Your task to perform on an android device: add a contact Image 0: 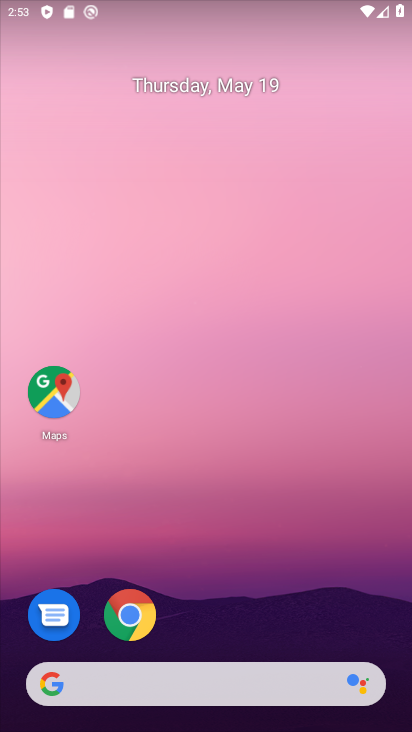
Step 0: press home button
Your task to perform on an android device: add a contact Image 1: 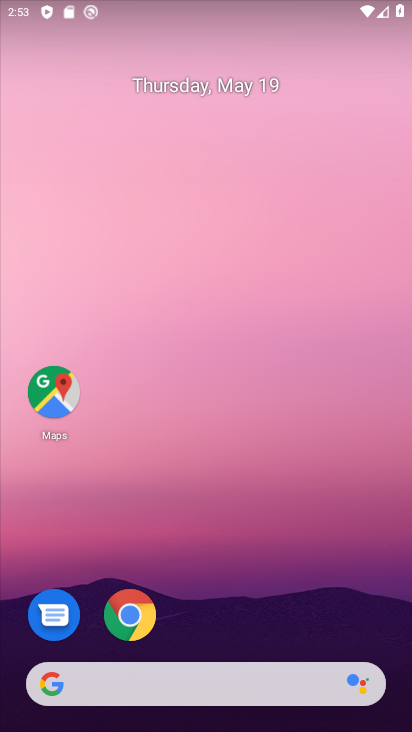
Step 1: drag from (334, 624) to (348, 141)
Your task to perform on an android device: add a contact Image 2: 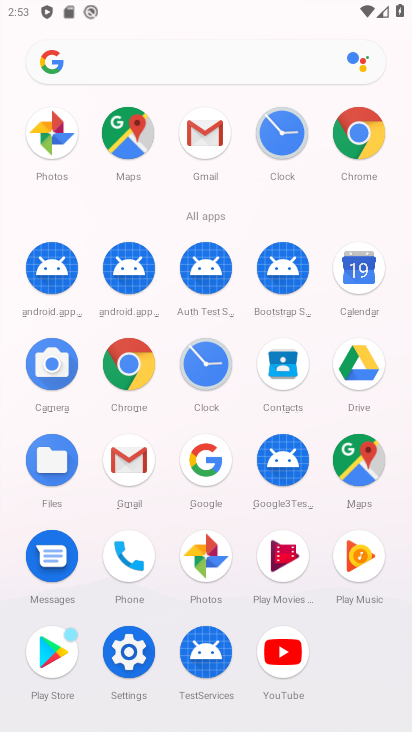
Step 2: click (352, 280)
Your task to perform on an android device: add a contact Image 3: 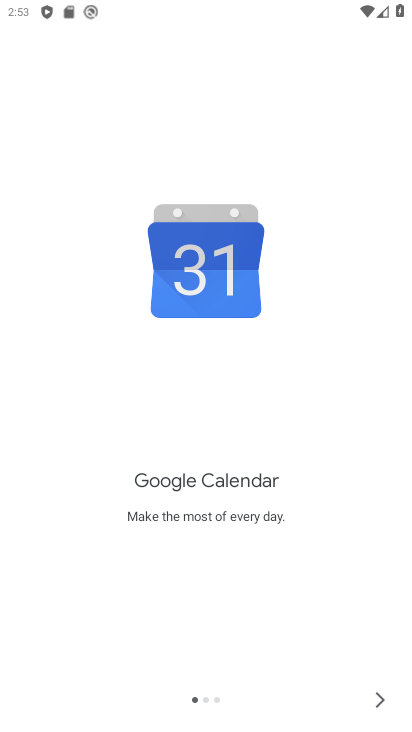
Step 3: click (376, 691)
Your task to perform on an android device: add a contact Image 4: 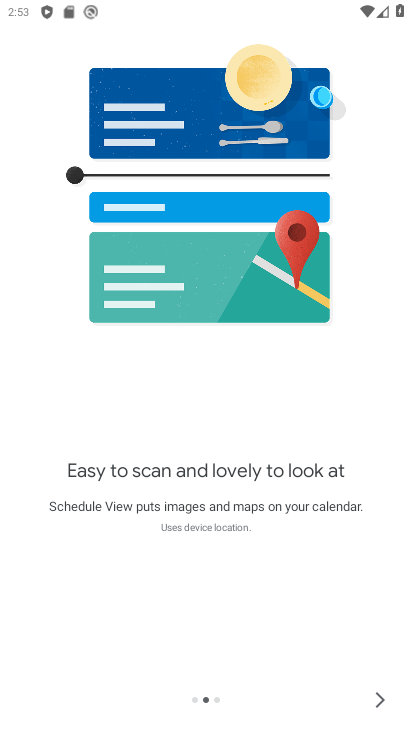
Step 4: press home button
Your task to perform on an android device: add a contact Image 5: 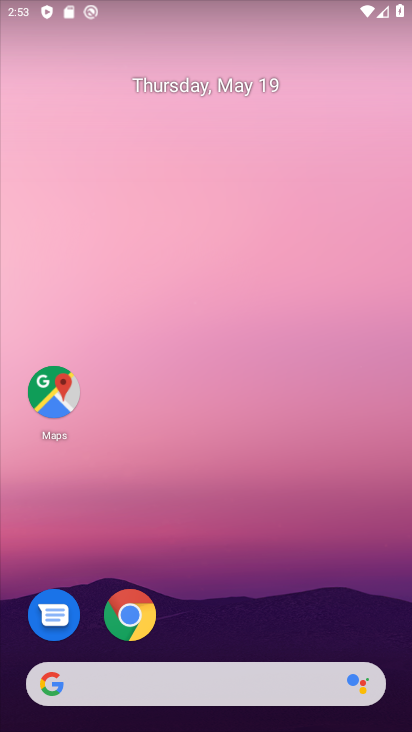
Step 5: drag from (225, 627) to (353, 14)
Your task to perform on an android device: add a contact Image 6: 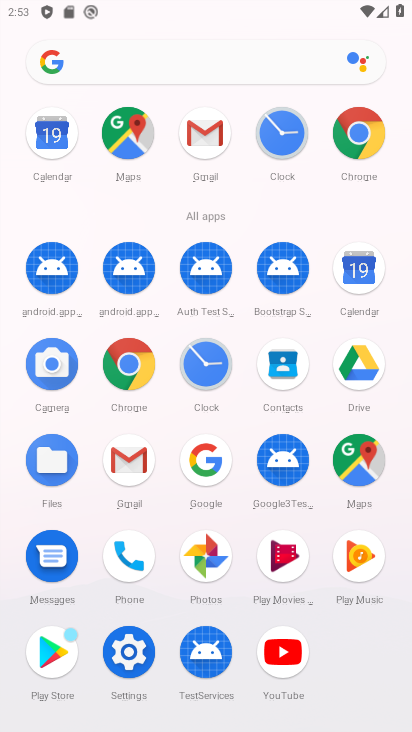
Step 6: click (265, 380)
Your task to perform on an android device: add a contact Image 7: 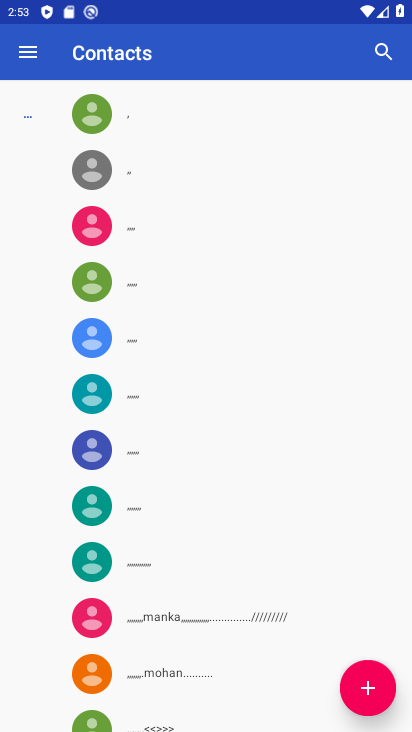
Step 7: click (371, 685)
Your task to perform on an android device: add a contact Image 8: 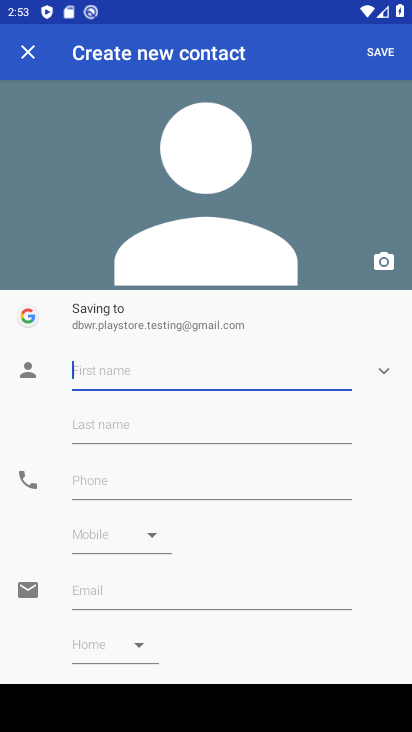
Step 8: type "dfghjkjhgfd"
Your task to perform on an android device: add a contact Image 9: 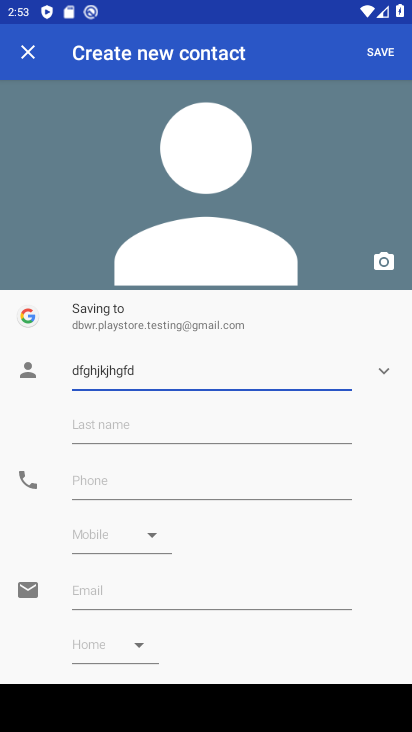
Step 9: click (242, 472)
Your task to perform on an android device: add a contact Image 10: 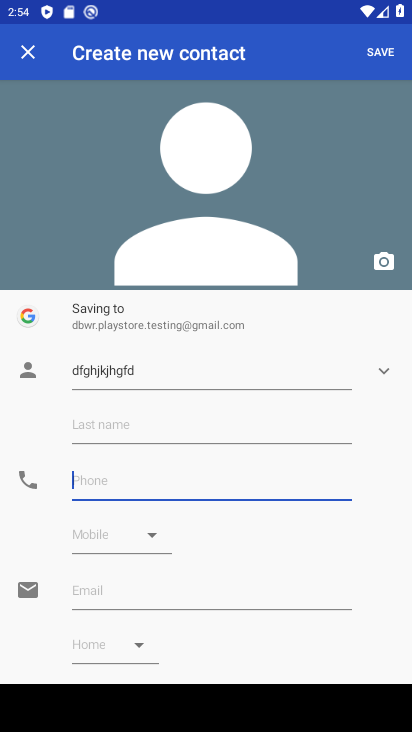
Step 10: type "456"
Your task to perform on an android device: add a contact Image 11: 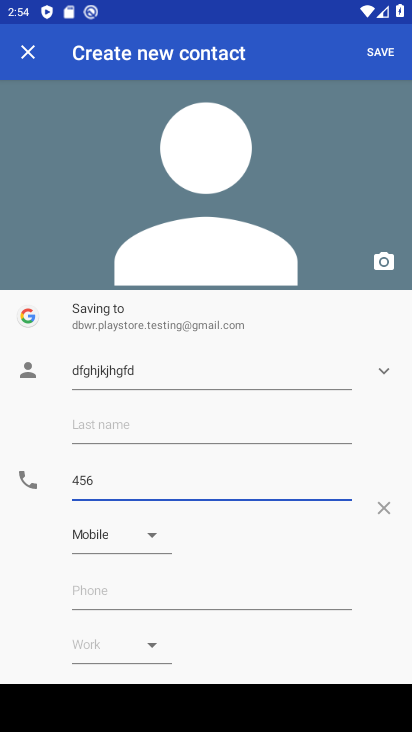
Step 11: click (376, 48)
Your task to perform on an android device: add a contact Image 12: 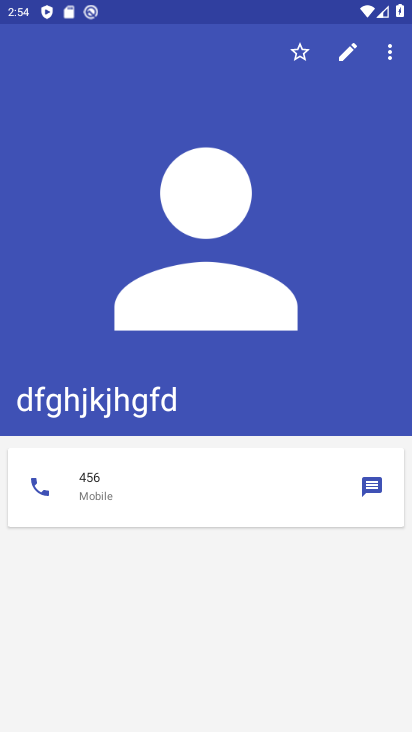
Step 12: task complete